Your task to perform on an android device: change the clock style Image 0: 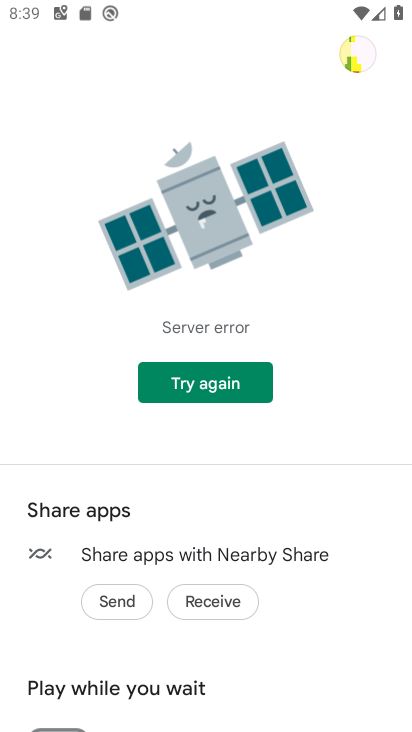
Step 0: press home button
Your task to perform on an android device: change the clock style Image 1: 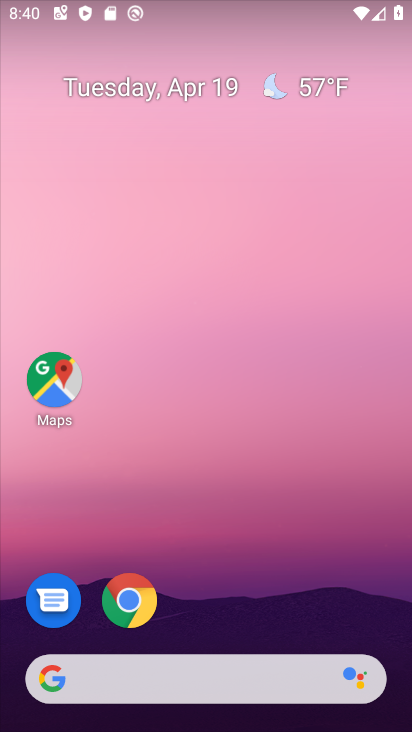
Step 1: drag from (363, 579) to (341, 103)
Your task to perform on an android device: change the clock style Image 2: 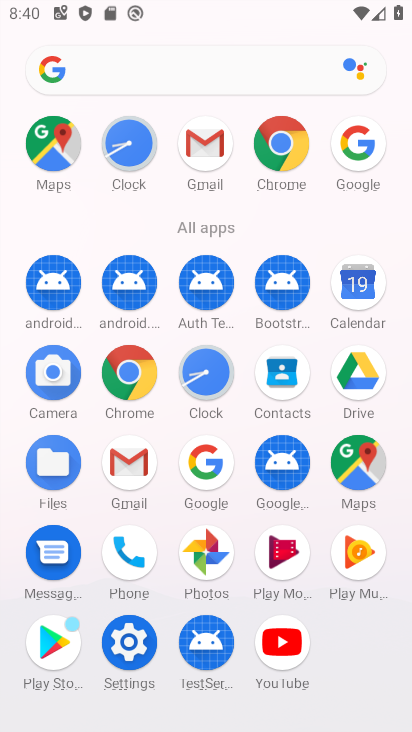
Step 2: click (209, 376)
Your task to perform on an android device: change the clock style Image 3: 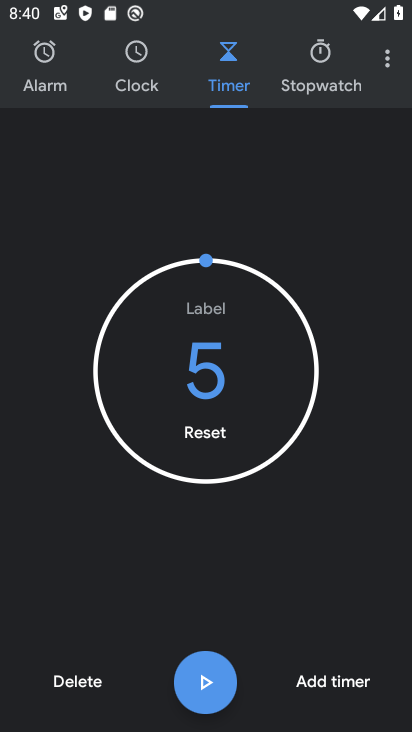
Step 3: click (386, 63)
Your task to perform on an android device: change the clock style Image 4: 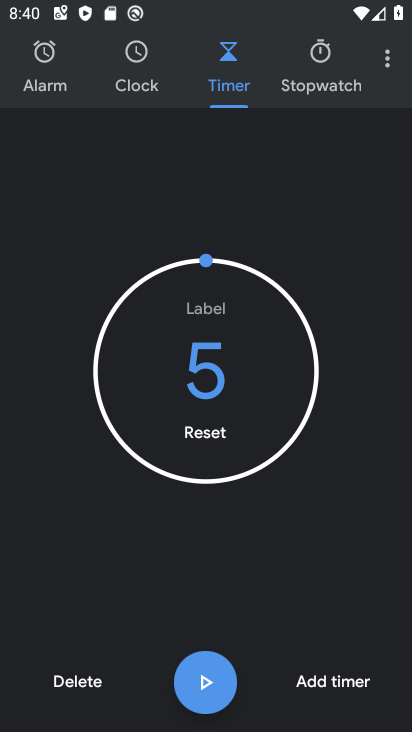
Step 4: click (384, 64)
Your task to perform on an android device: change the clock style Image 5: 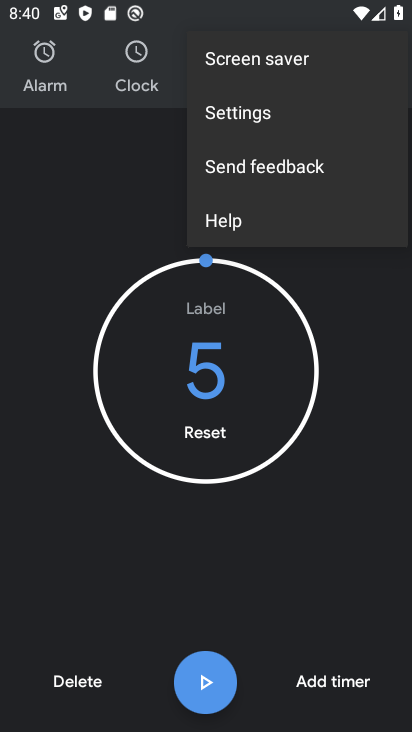
Step 5: click (261, 114)
Your task to perform on an android device: change the clock style Image 6: 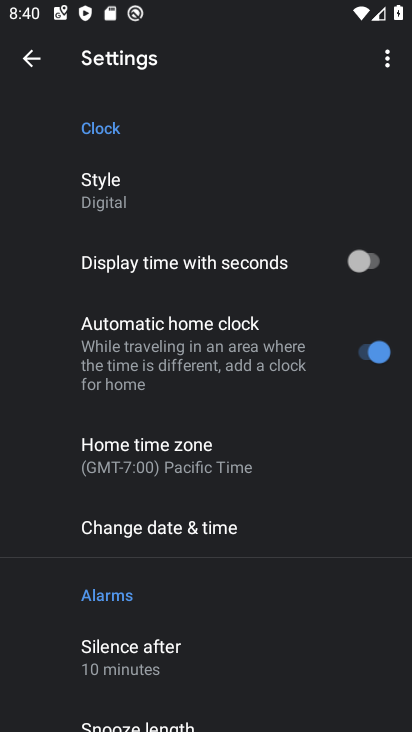
Step 6: drag from (297, 618) to (321, 349)
Your task to perform on an android device: change the clock style Image 7: 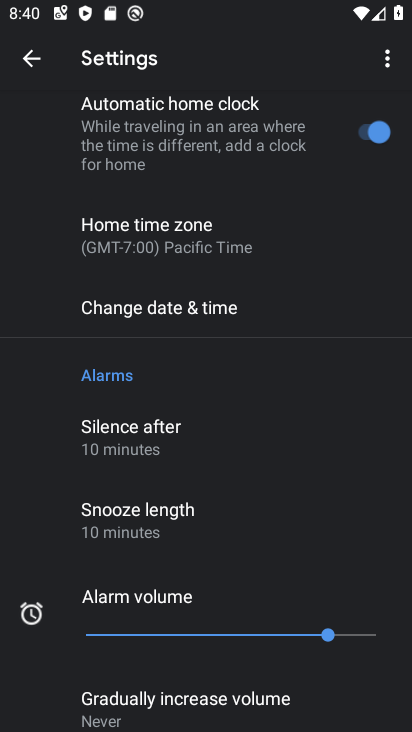
Step 7: drag from (289, 534) to (313, 227)
Your task to perform on an android device: change the clock style Image 8: 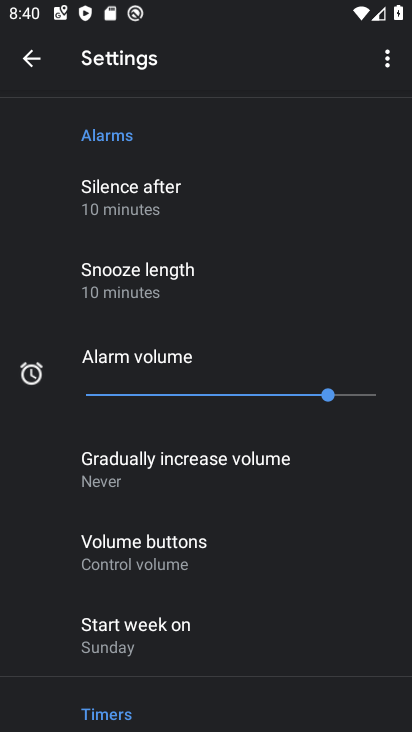
Step 8: drag from (318, 562) to (345, 165)
Your task to perform on an android device: change the clock style Image 9: 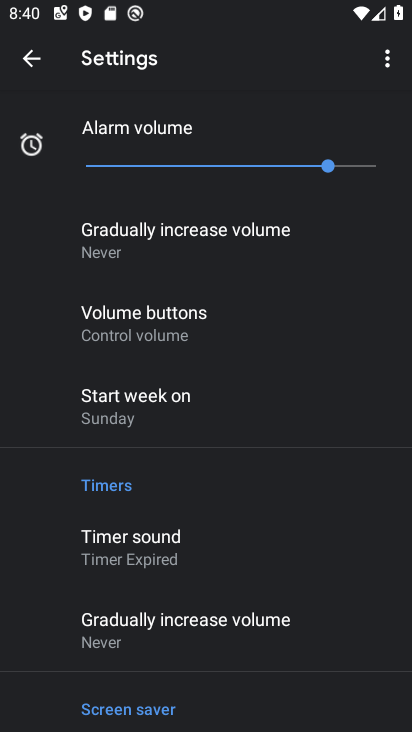
Step 9: drag from (334, 491) to (365, 227)
Your task to perform on an android device: change the clock style Image 10: 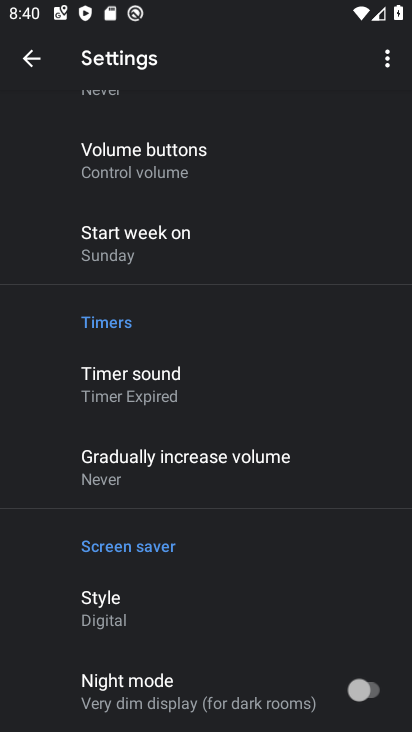
Step 10: drag from (363, 218) to (347, 545)
Your task to perform on an android device: change the clock style Image 11: 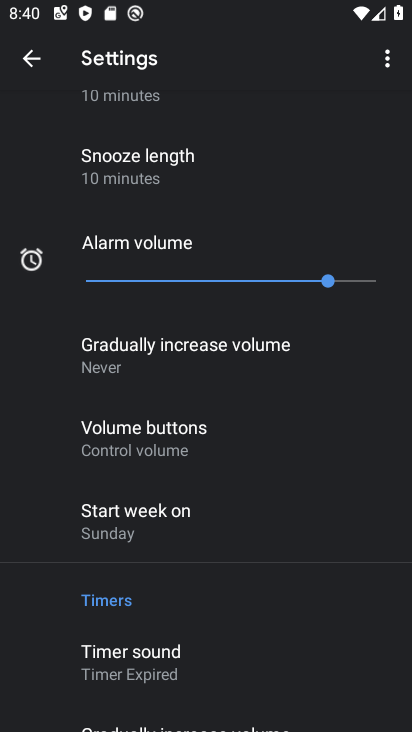
Step 11: drag from (378, 226) to (364, 547)
Your task to perform on an android device: change the clock style Image 12: 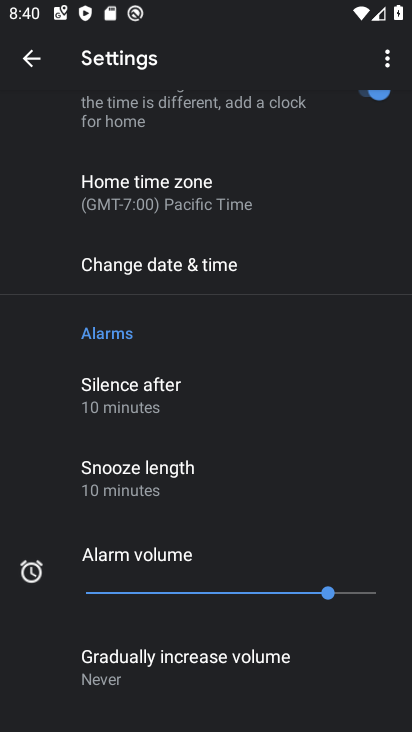
Step 12: drag from (324, 210) to (345, 512)
Your task to perform on an android device: change the clock style Image 13: 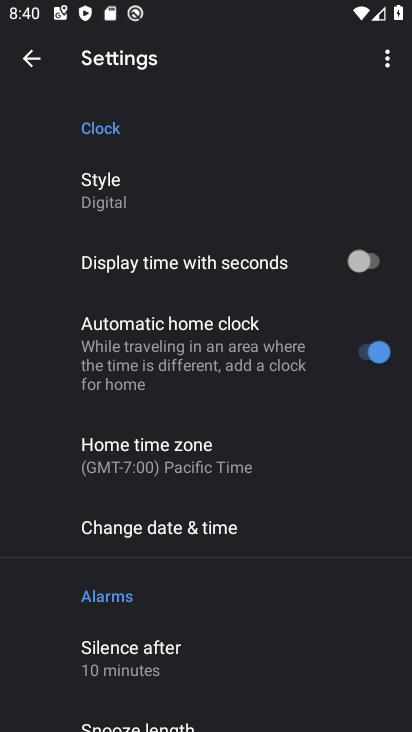
Step 13: click (102, 191)
Your task to perform on an android device: change the clock style Image 14: 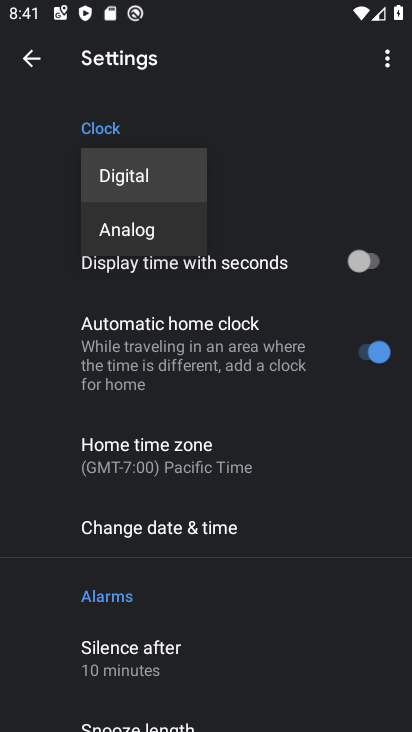
Step 14: click (131, 235)
Your task to perform on an android device: change the clock style Image 15: 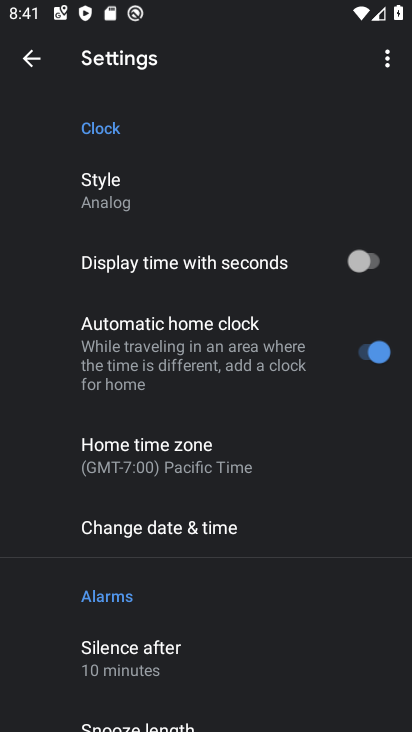
Step 15: task complete